Your task to perform on an android device: turn off smart reply in the gmail app Image 0: 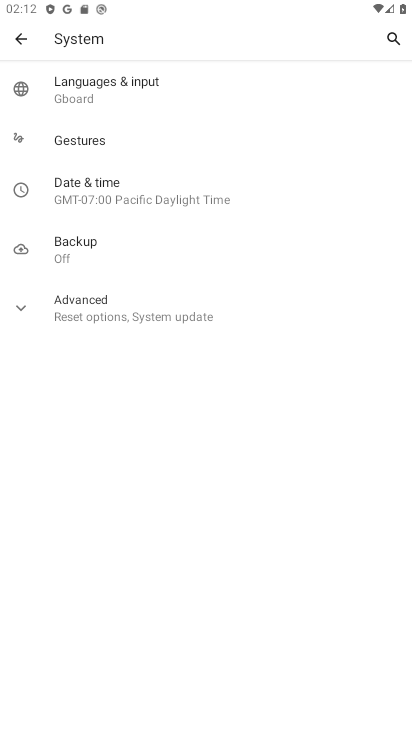
Step 0: press home button
Your task to perform on an android device: turn off smart reply in the gmail app Image 1: 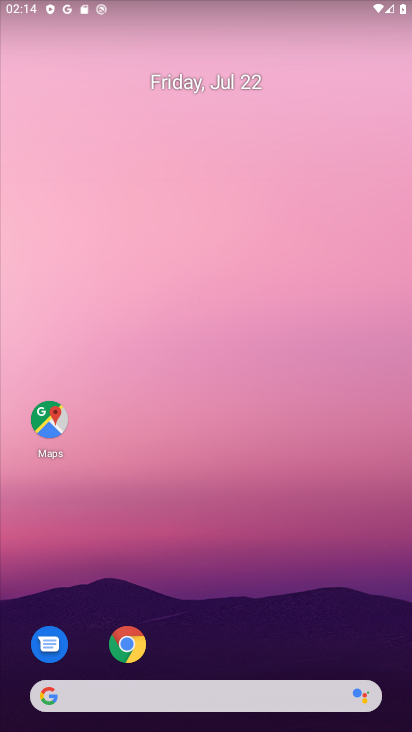
Step 1: drag from (168, 724) to (135, 161)
Your task to perform on an android device: turn off smart reply in the gmail app Image 2: 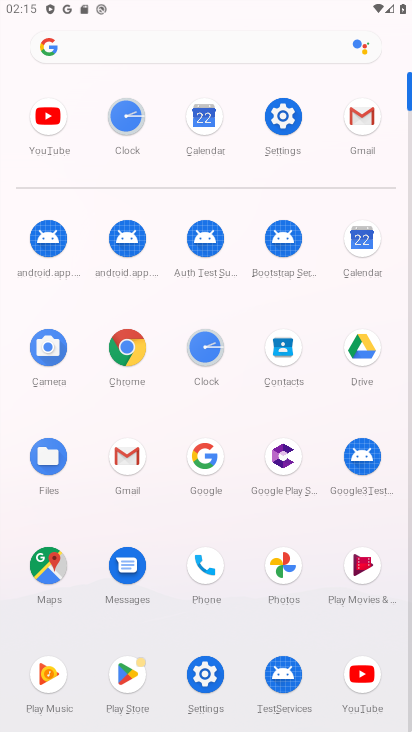
Step 2: click (357, 116)
Your task to perform on an android device: turn off smart reply in the gmail app Image 3: 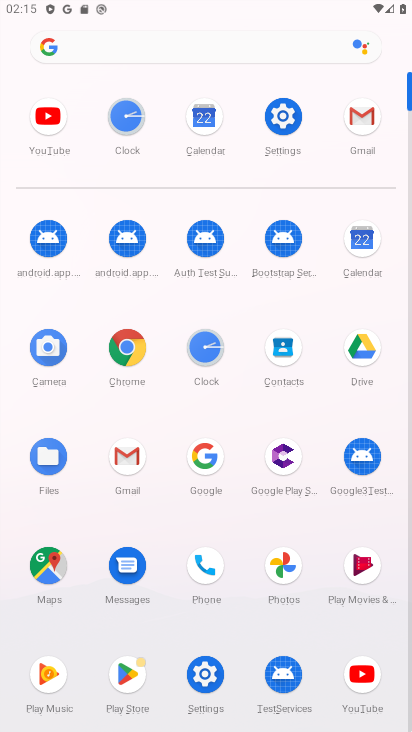
Step 3: click (357, 116)
Your task to perform on an android device: turn off smart reply in the gmail app Image 4: 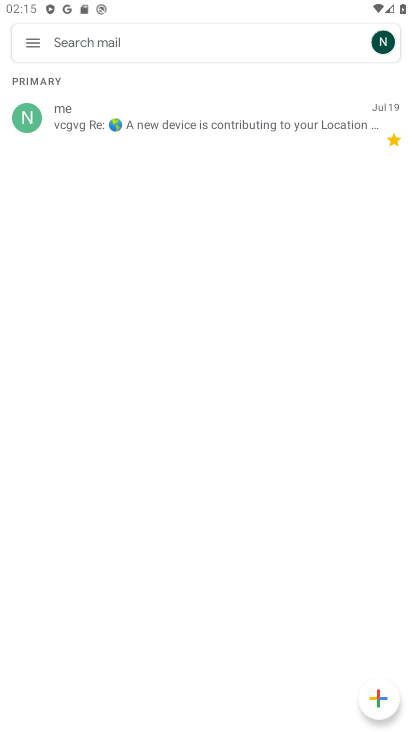
Step 4: click (28, 39)
Your task to perform on an android device: turn off smart reply in the gmail app Image 5: 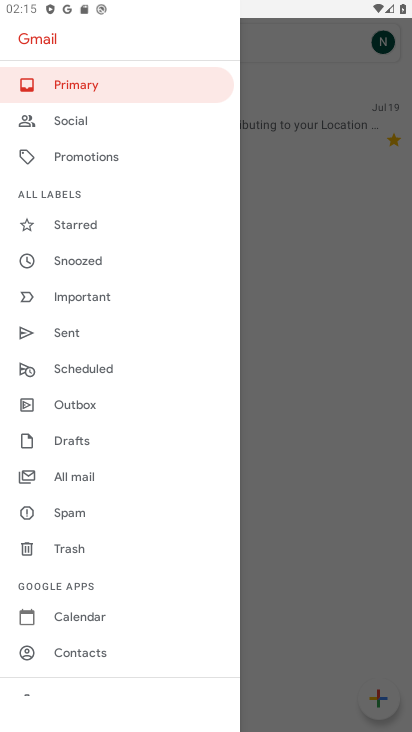
Step 5: drag from (136, 611) to (93, 25)
Your task to perform on an android device: turn off smart reply in the gmail app Image 6: 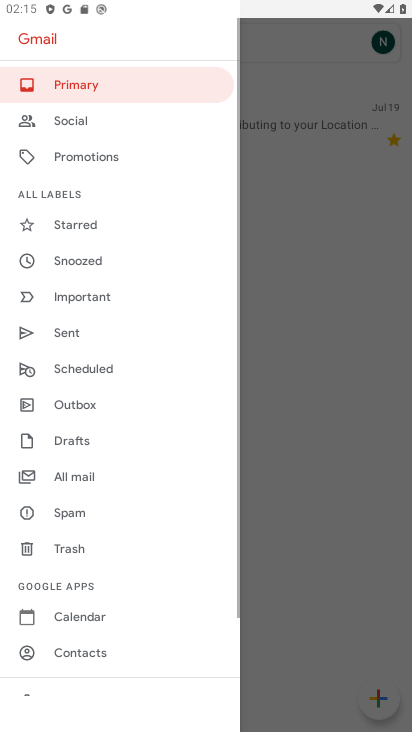
Step 6: drag from (120, 633) to (221, 34)
Your task to perform on an android device: turn off smart reply in the gmail app Image 7: 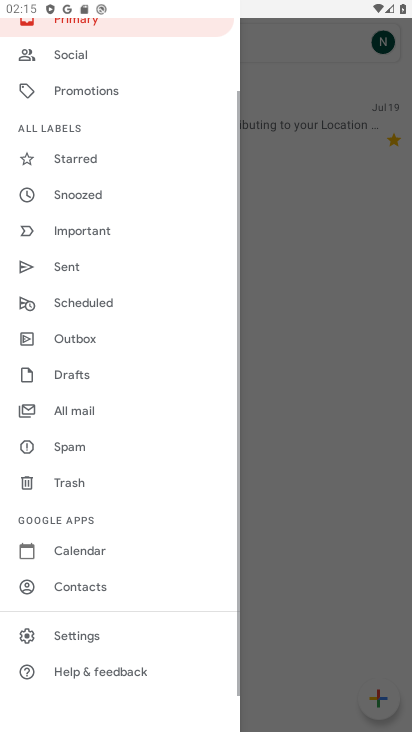
Step 7: click (72, 633)
Your task to perform on an android device: turn off smart reply in the gmail app Image 8: 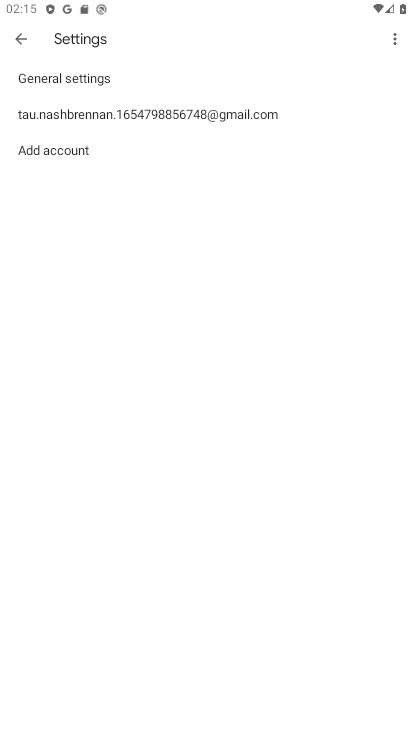
Step 8: click (113, 124)
Your task to perform on an android device: turn off smart reply in the gmail app Image 9: 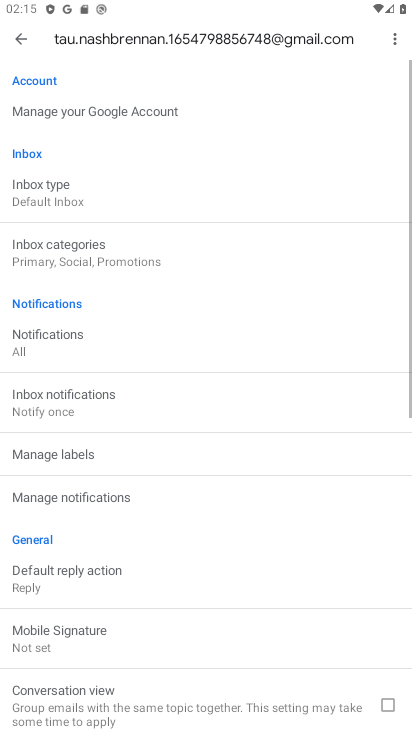
Step 9: drag from (142, 605) to (159, 116)
Your task to perform on an android device: turn off smart reply in the gmail app Image 10: 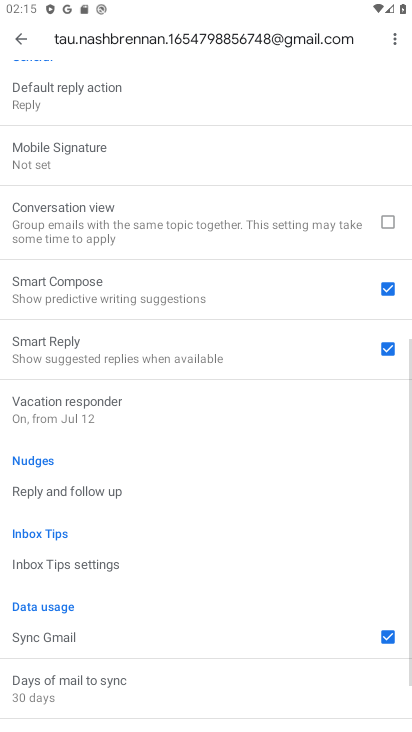
Step 10: click (385, 347)
Your task to perform on an android device: turn off smart reply in the gmail app Image 11: 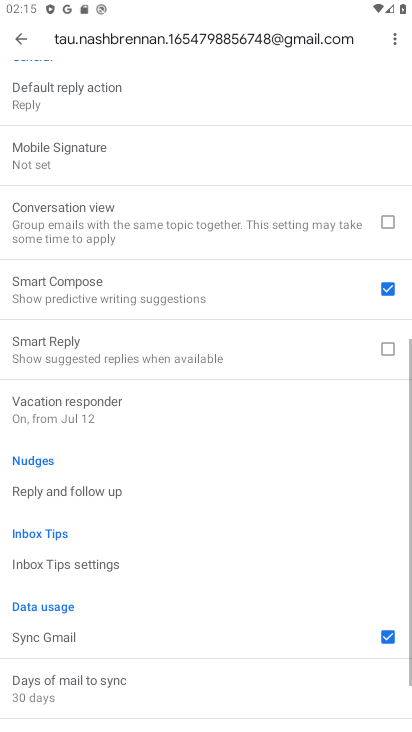
Step 11: task complete